Your task to perform on an android device: open the mobile data screen to see how much data has been used Image 0: 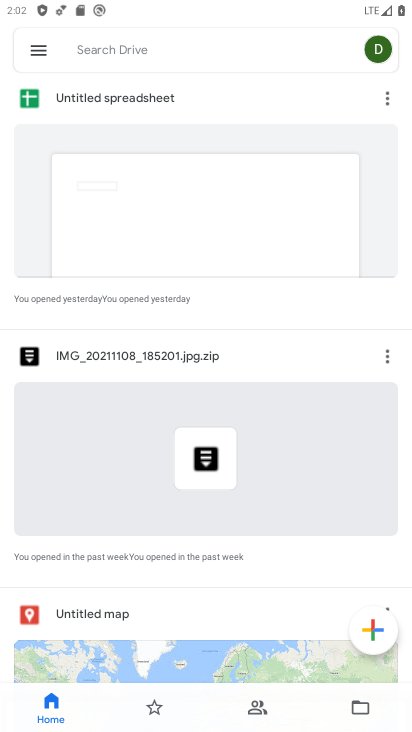
Step 0: press home button
Your task to perform on an android device: open the mobile data screen to see how much data has been used Image 1: 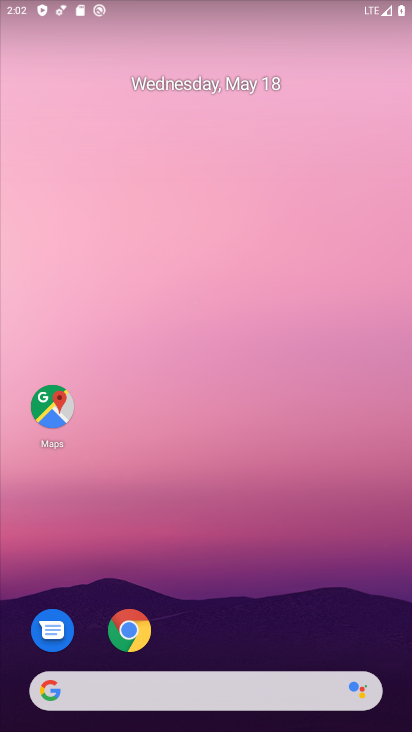
Step 1: drag from (211, 641) to (211, 198)
Your task to perform on an android device: open the mobile data screen to see how much data has been used Image 2: 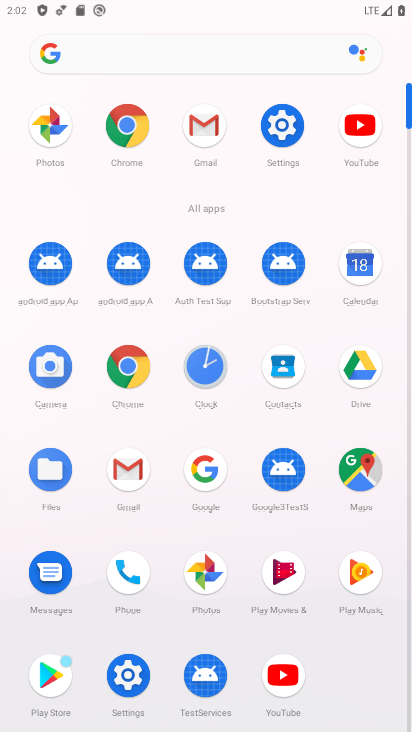
Step 2: click (277, 128)
Your task to perform on an android device: open the mobile data screen to see how much data has been used Image 3: 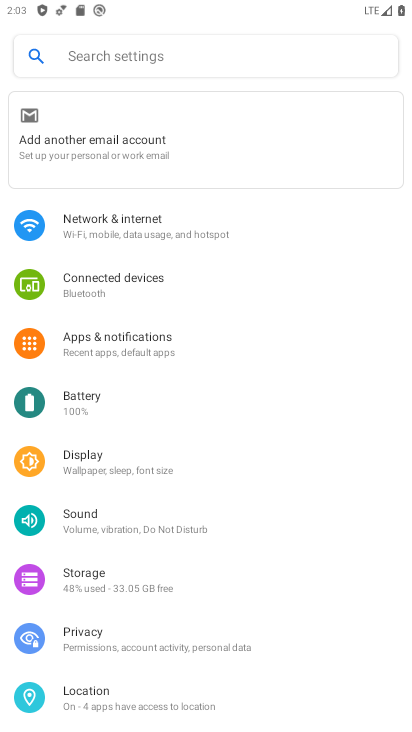
Step 3: click (169, 208)
Your task to perform on an android device: open the mobile data screen to see how much data has been used Image 4: 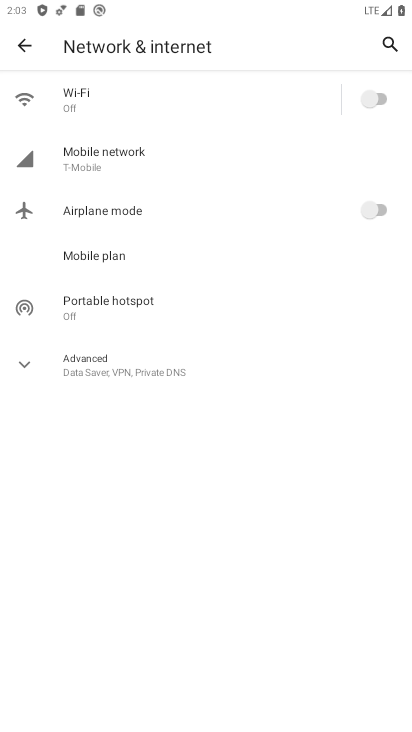
Step 4: click (136, 163)
Your task to perform on an android device: open the mobile data screen to see how much data has been used Image 5: 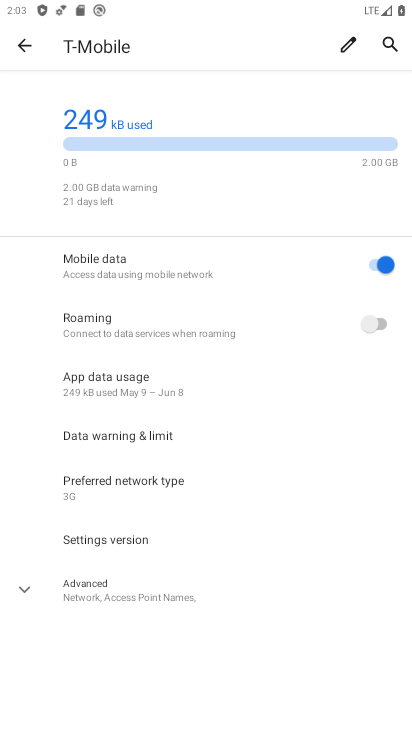
Step 5: task complete